Your task to perform on an android device: toggle improve location accuracy Image 0: 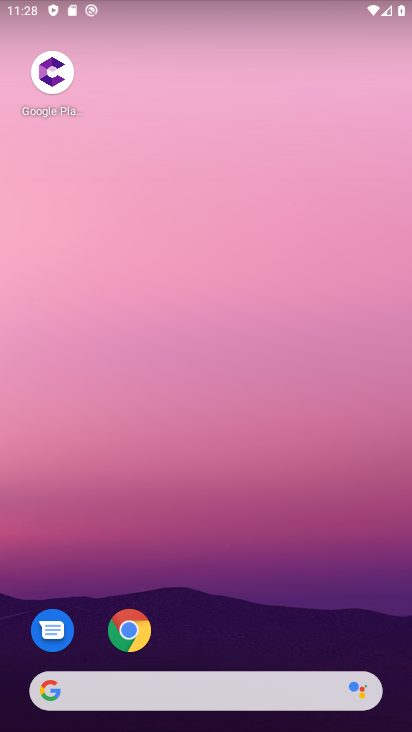
Step 0: drag from (253, 656) to (254, 39)
Your task to perform on an android device: toggle improve location accuracy Image 1: 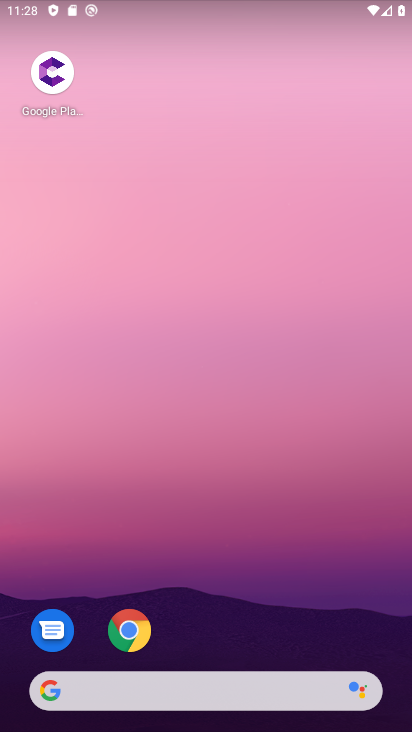
Step 1: click (216, 43)
Your task to perform on an android device: toggle improve location accuracy Image 2: 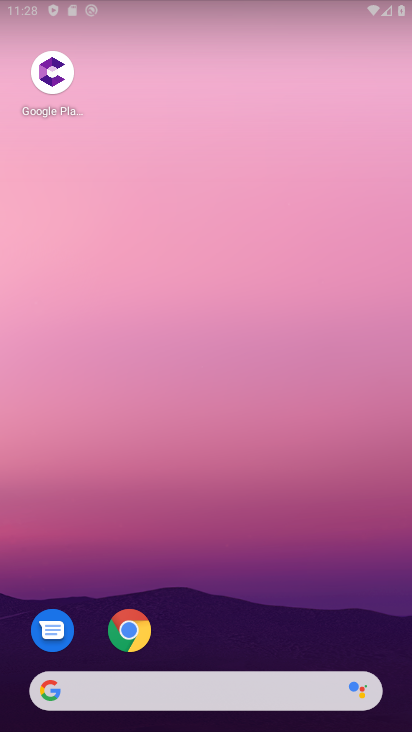
Step 2: drag from (240, 277) to (240, 46)
Your task to perform on an android device: toggle improve location accuracy Image 3: 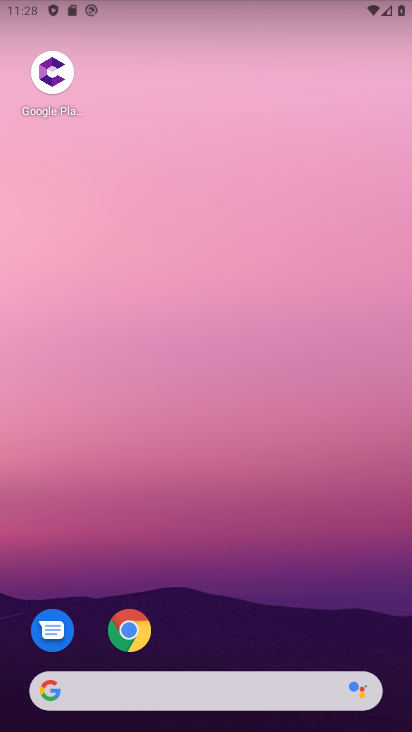
Step 3: drag from (252, 493) to (228, 23)
Your task to perform on an android device: toggle improve location accuracy Image 4: 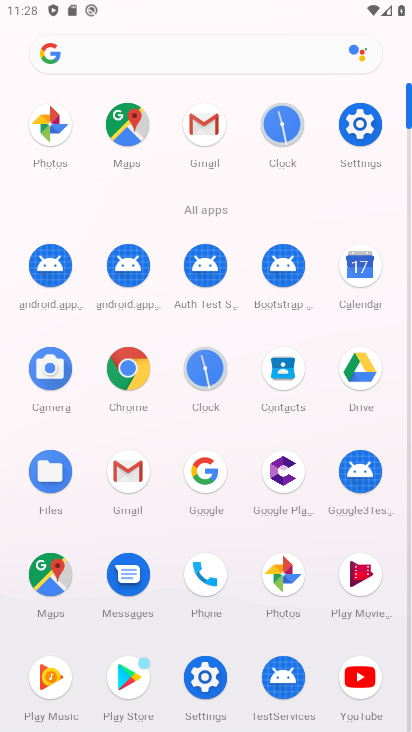
Step 4: drag from (223, 592) to (191, 5)
Your task to perform on an android device: toggle improve location accuracy Image 5: 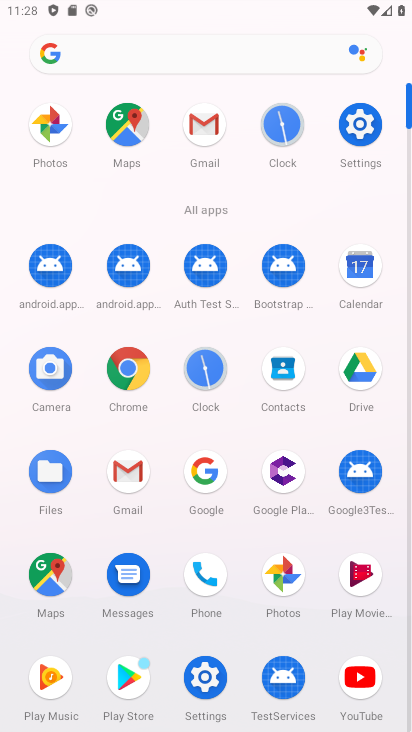
Step 5: click (355, 141)
Your task to perform on an android device: toggle improve location accuracy Image 6: 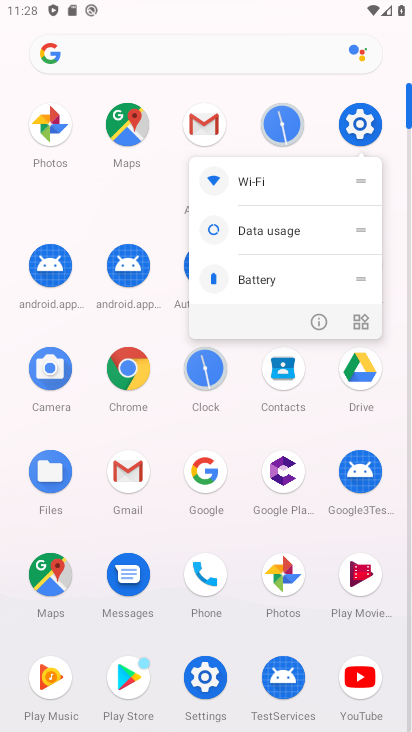
Step 6: click (354, 118)
Your task to perform on an android device: toggle improve location accuracy Image 7: 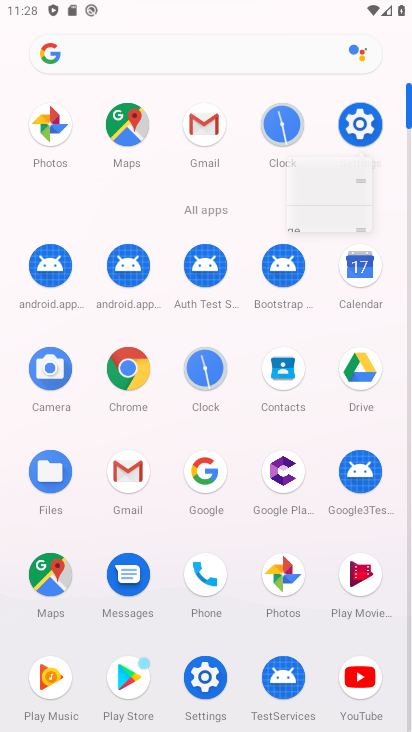
Step 7: click (356, 118)
Your task to perform on an android device: toggle improve location accuracy Image 8: 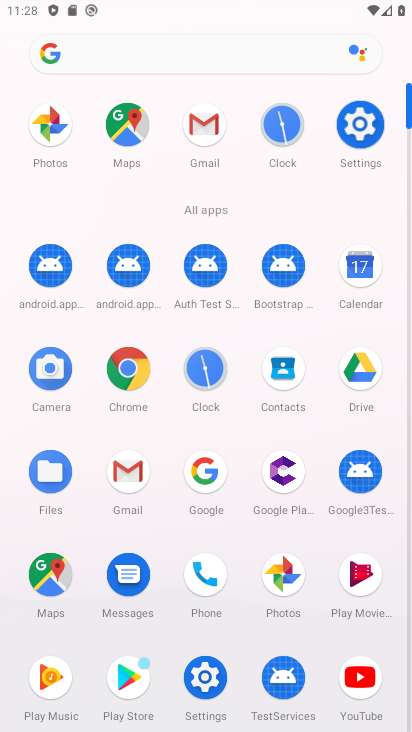
Step 8: click (359, 117)
Your task to perform on an android device: toggle improve location accuracy Image 9: 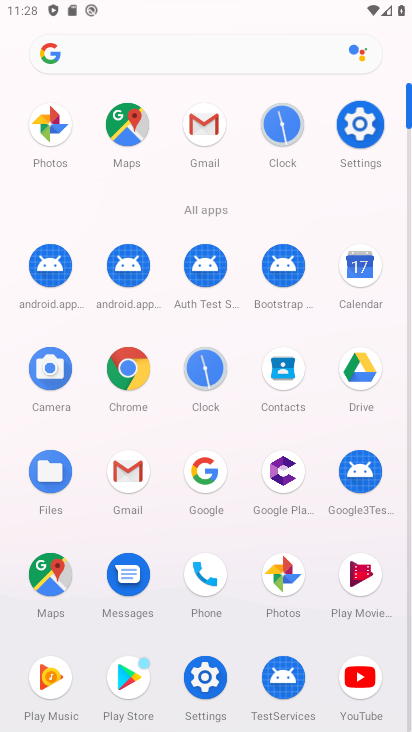
Step 9: click (359, 117)
Your task to perform on an android device: toggle improve location accuracy Image 10: 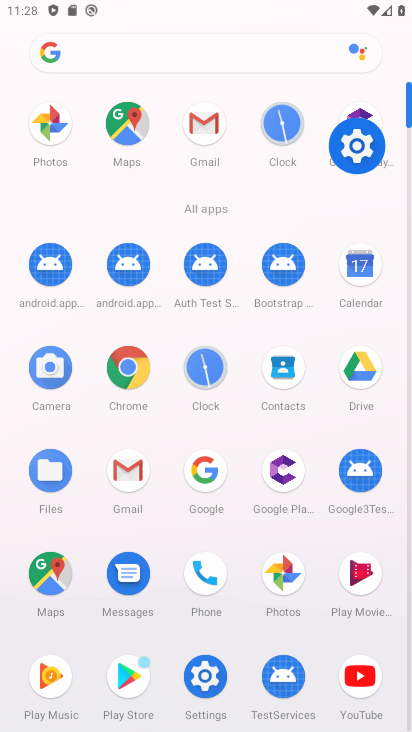
Step 10: click (359, 122)
Your task to perform on an android device: toggle improve location accuracy Image 11: 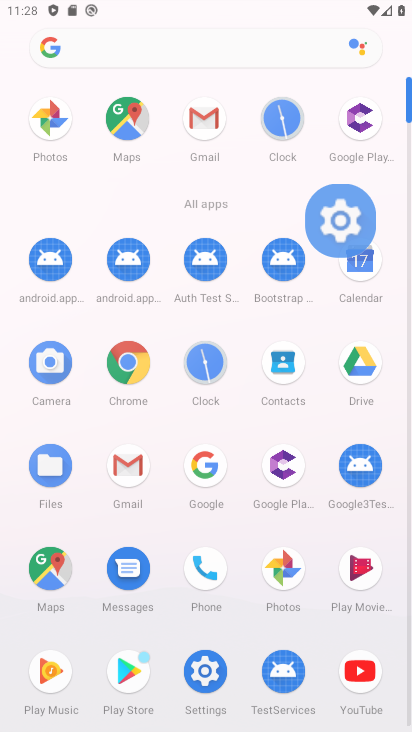
Step 11: click (361, 131)
Your task to perform on an android device: toggle improve location accuracy Image 12: 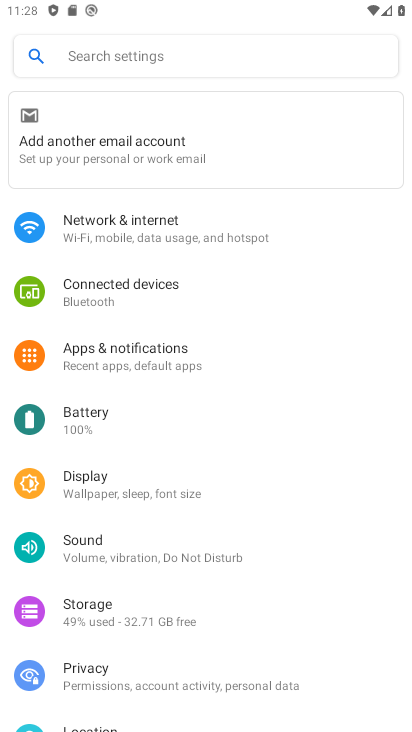
Step 12: drag from (149, 582) to (121, 324)
Your task to perform on an android device: toggle improve location accuracy Image 13: 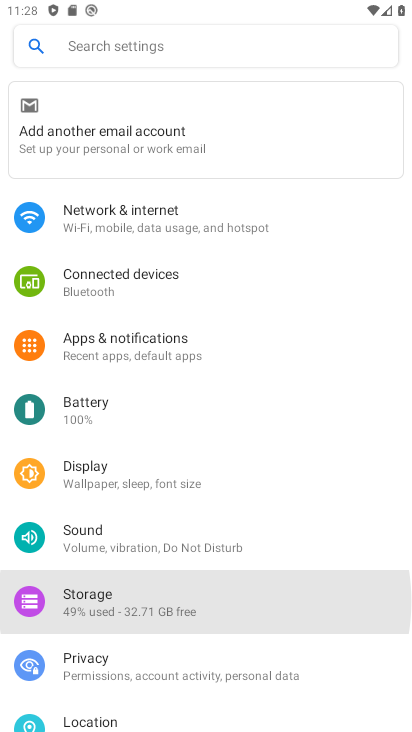
Step 13: drag from (169, 571) to (169, 298)
Your task to perform on an android device: toggle improve location accuracy Image 14: 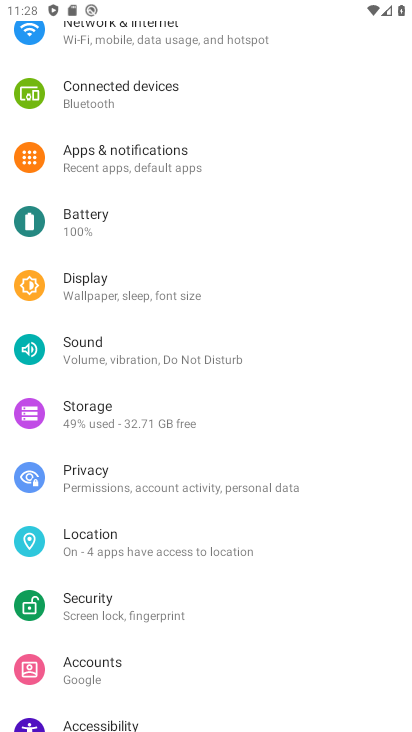
Step 14: click (113, 530)
Your task to perform on an android device: toggle improve location accuracy Image 15: 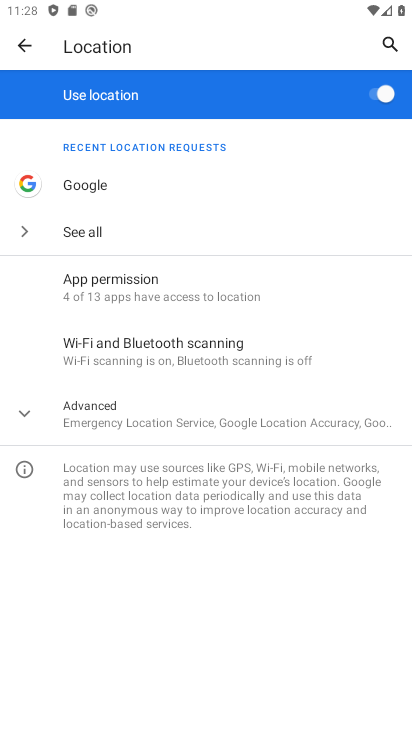
Step 15: click (128, 409)
Your task to perform on an android device: toggle improve location accuracy Image 16: 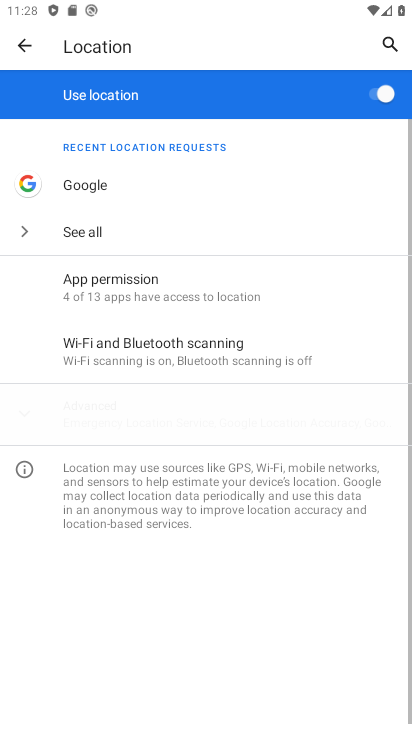
Step 16: click (121, 414)
Your task to perform on an android device: toggle improve location accuracy Image 17: 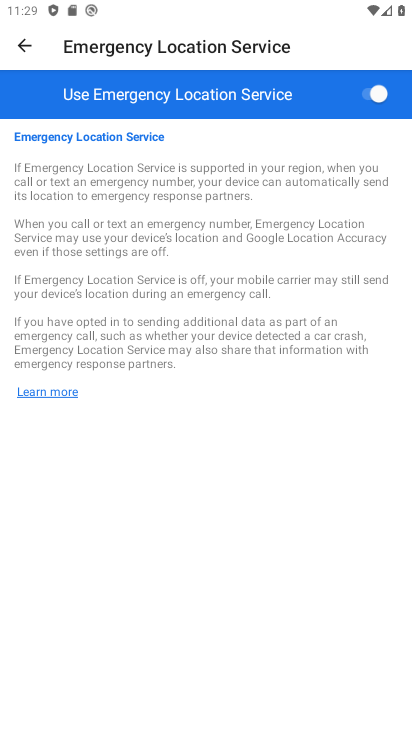
Step 17: click (21, 49)
Your task to perform on an android device: toggle improve location accuracy Image 18: 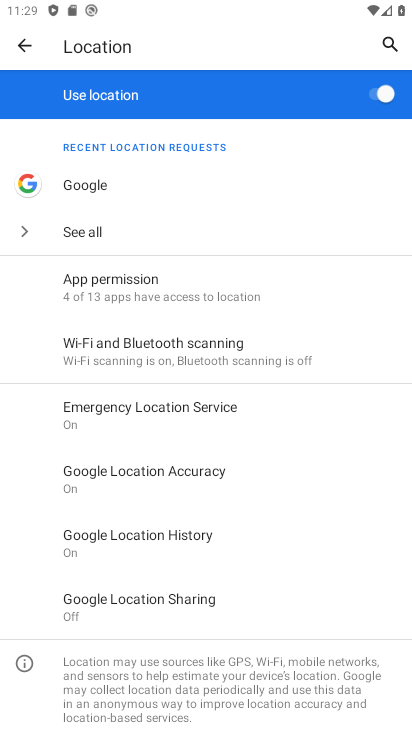
Step 18: click (123, 466)
Your task to perform on an android device: toggle improve location accuracy Image 19: 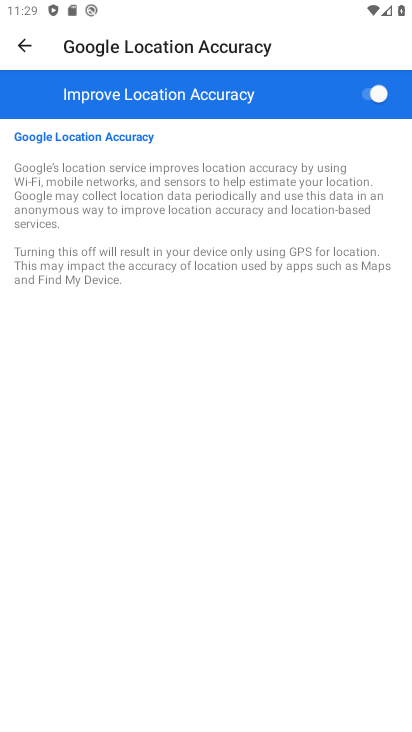
Step 19: click (371, 94)
Your task to perform on an android device: toggle improve location accuracy Image 20: 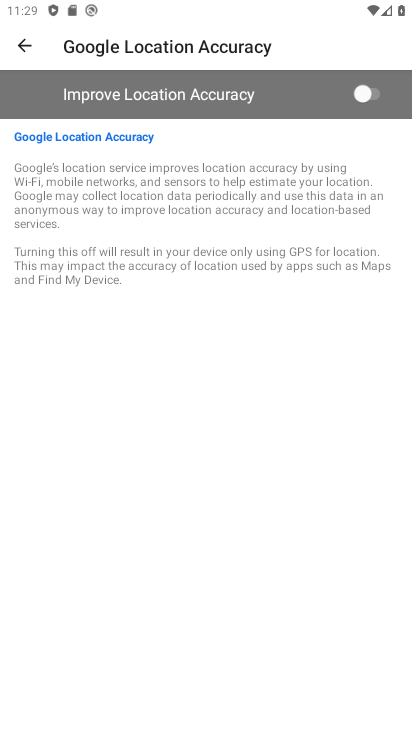
Step 20: task complete